Your task to perform on an android device: Open notification settings Image 0: 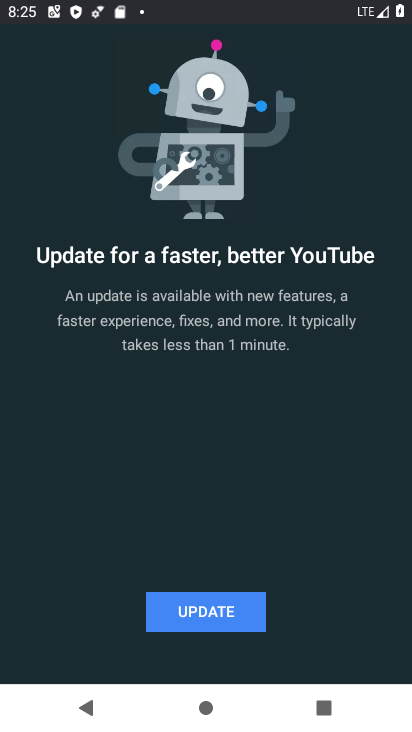
Step 0: press home button
Your task to perform on an android device: Open notification settings Image 1: 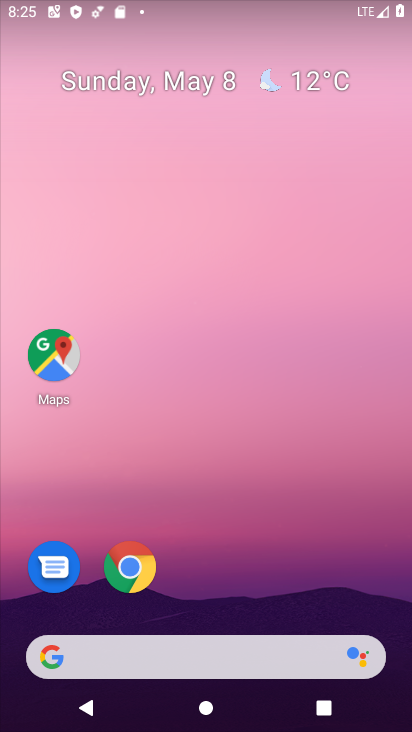
Step 1: drag from (211, 659) to (133, 29)
Your task to perform on an android device: Open notification settings Image 2: 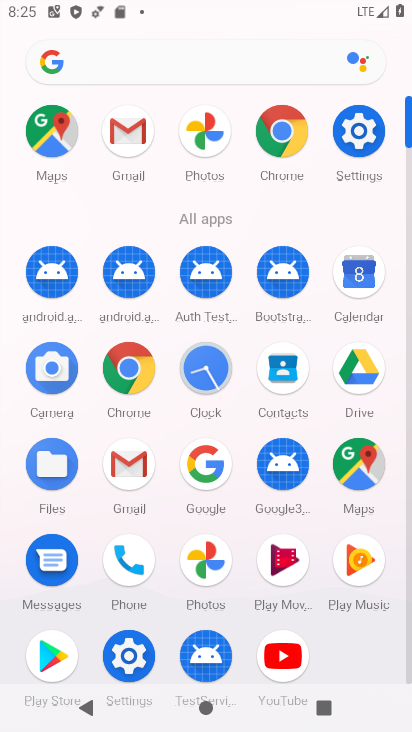
Step 2: click (124, 653)
Your task to perform on an android device: Open notification settings Image 3: 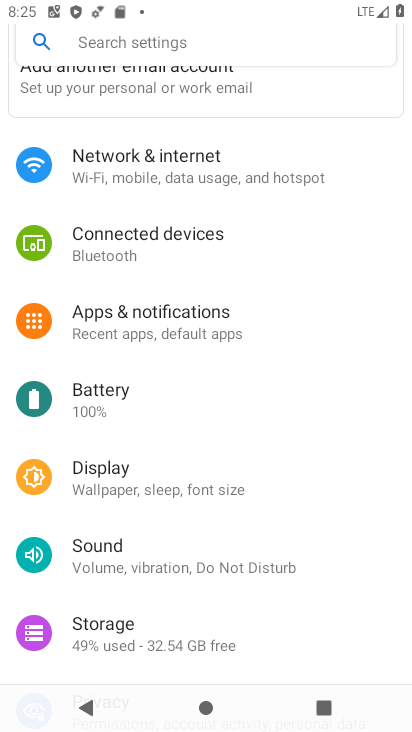
Step 3: click (175, 319)
Your task to perform on an android device: Open notification settings Image 4: 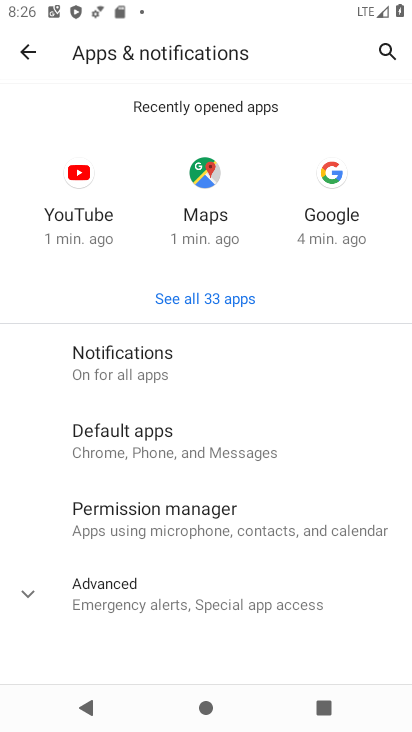
Step 4: task complete